Your task to perform on an android device: toggle priority inbox in the gmail app Image 0: 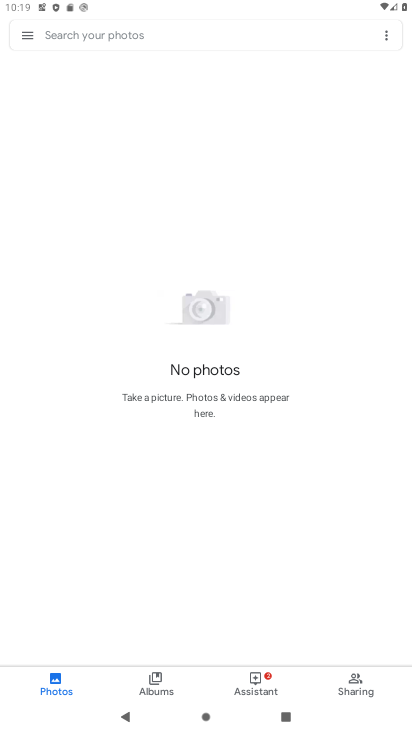
Step 0: press home button
Your task to perform on an android device: toggle priority inbox in the gmail app Image 1: 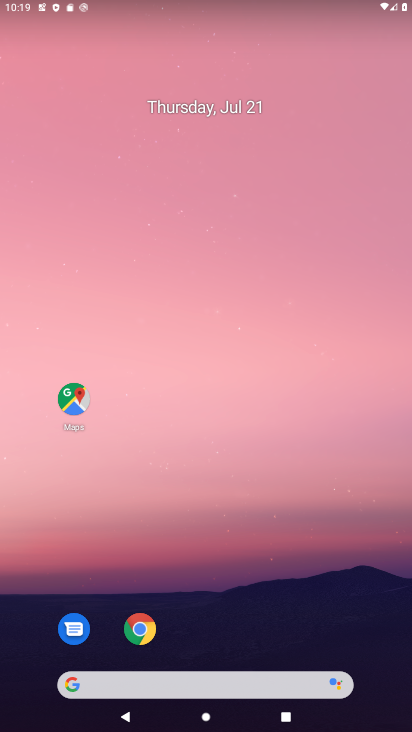
Step 1: drag from (242, 632) to (211, 226)
Your task to perform on an android device: toggle priority inbox in the gmail app Image 2: 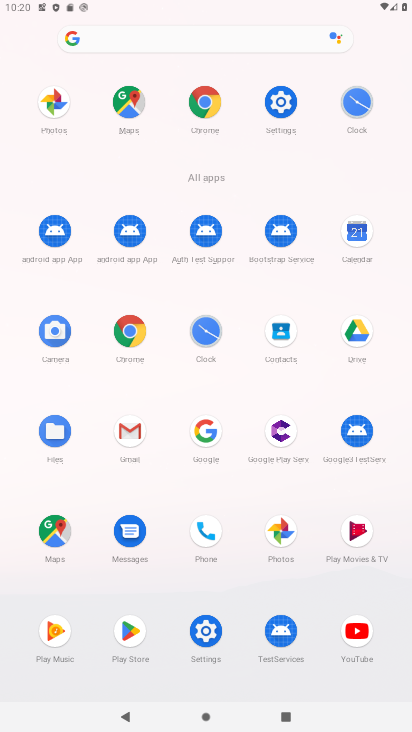
Step 2: click (124, 420)
Your task to perform on an android device: toggle priority inbox in the gmail app Image 3: 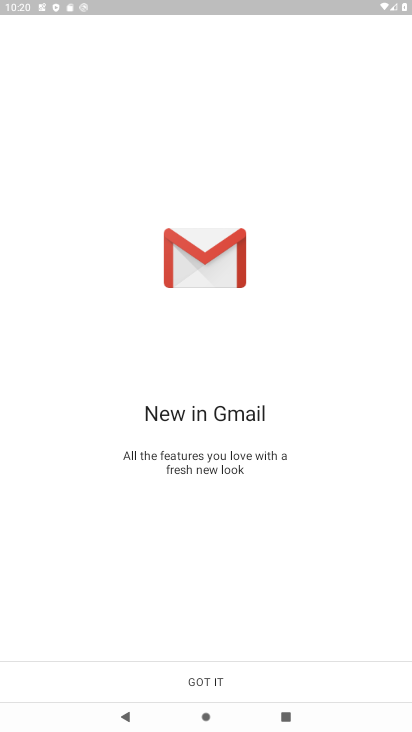
Step 3: click (127, 673)
Your task to perform on an android device: toggle priority inbox in the gmail app Image 4: 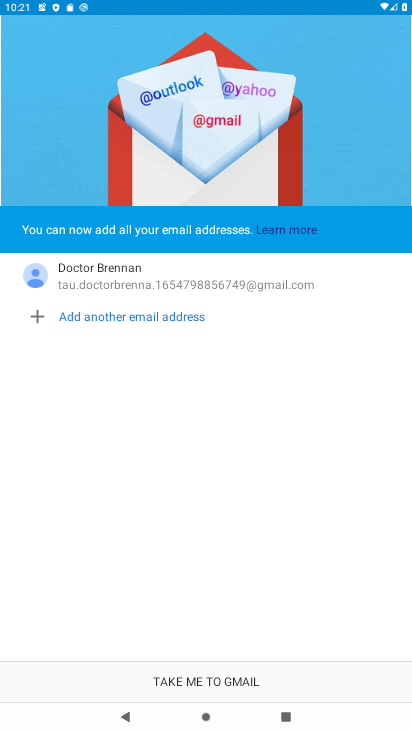
Step 4: click (160, 673)
Your task to perform on an android device: toggle priority inbox in the gmail app Image 5: 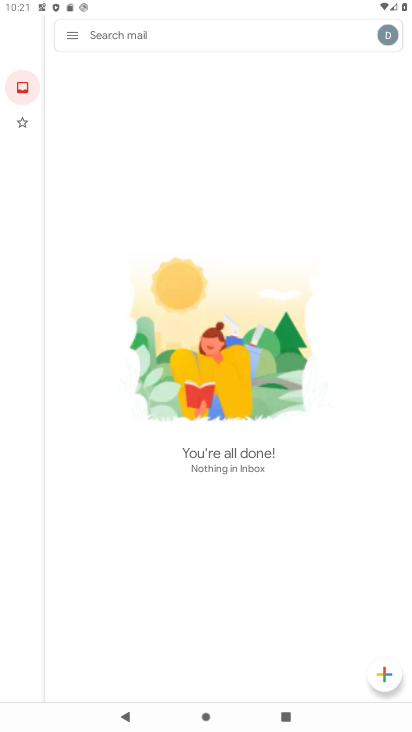
Step 5: click (72, 35)
Your task to perform on an android device: toggle priority inbox in the gmail app Image 6: 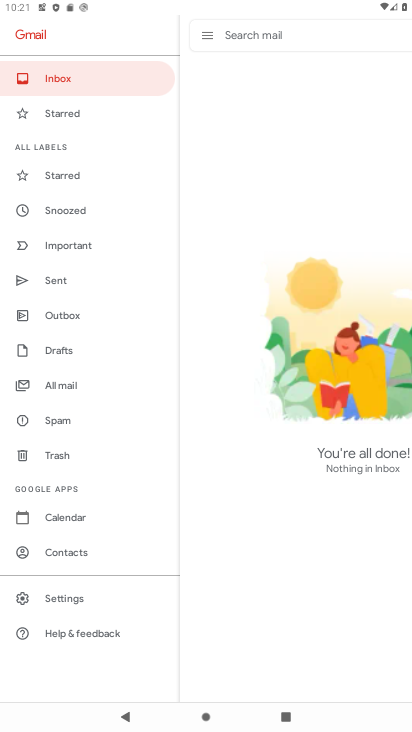
Step 6: click (72, 35)
Your task to perform on an android device: toggle priority inbox in the gmail app Image 7: 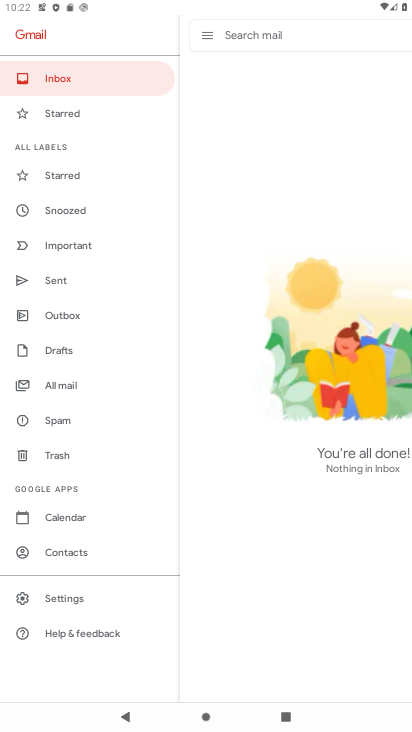
Step 7: click (52, 601)
Your task to perform on an android device: toggle priority inbox in the gmail app Image 8: 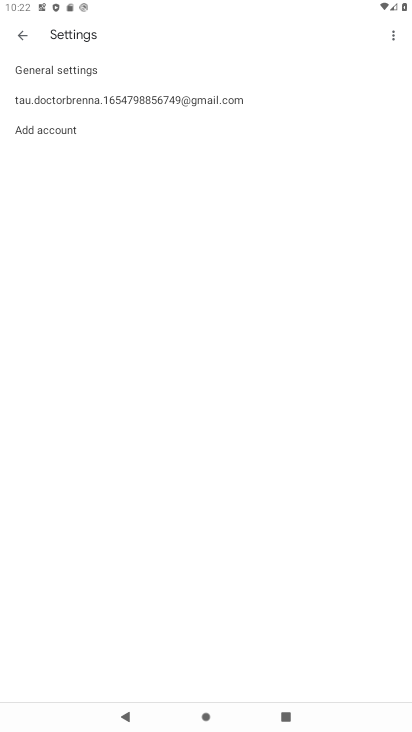
Step 8: click (177, 93)
Your task to perform on an android device: toggle priority inbox in the gmail app Image 9: 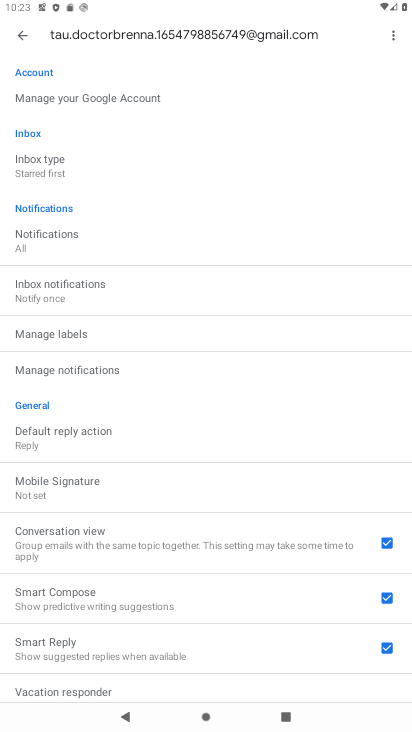
Step 9: click (88, 459)
Your task to perform on an android device: toggle priority inbox in the gmail app Image 10: 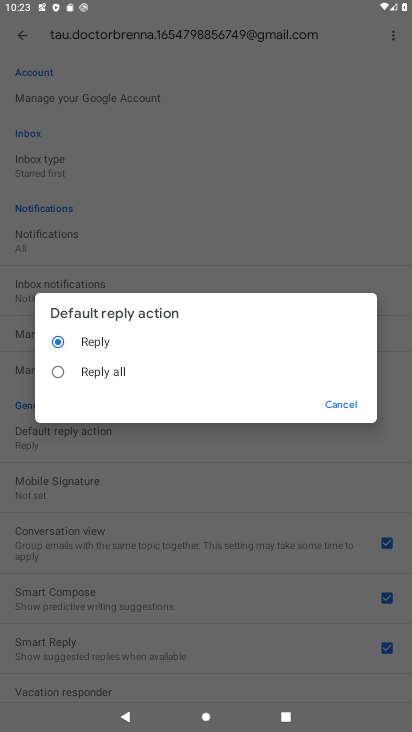
Step 10: click (133, 419)
Your task to perform on an android device: toggle priority inbox in the gmail app Image 11: 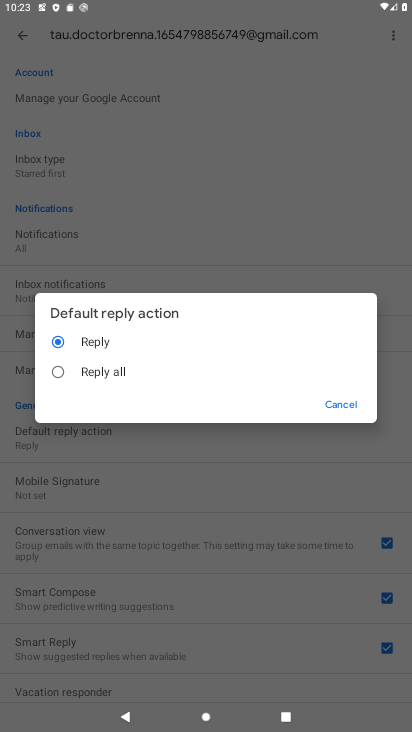
Step 11: click (329, 404)
Your task to perform on an android device: toggle priority inbox in the gmail app Image 12: 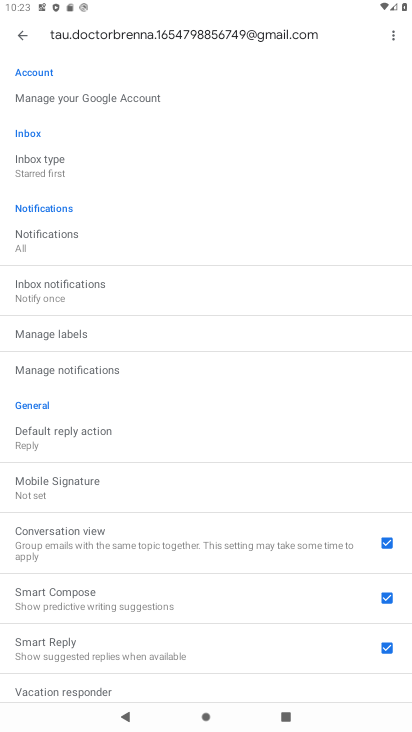
Step 12: click (50, 153)
Your task to perform on an android device: toggle priority inbox in the gmail app Image 13: 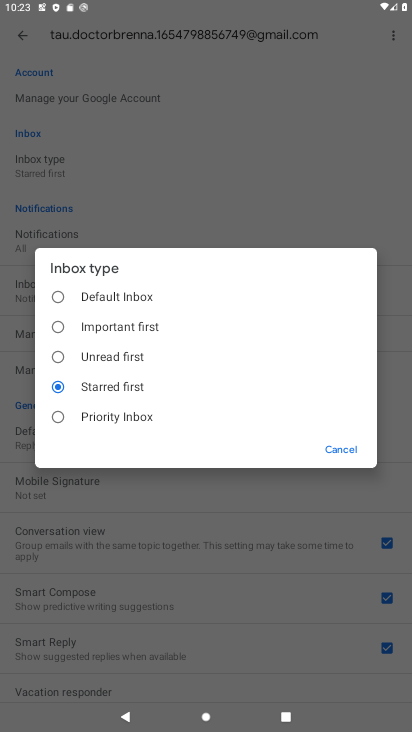
Step 13: click (100, 411)
Your task to perform on an android device: toggle priority inbox in the gmail app Image 14: 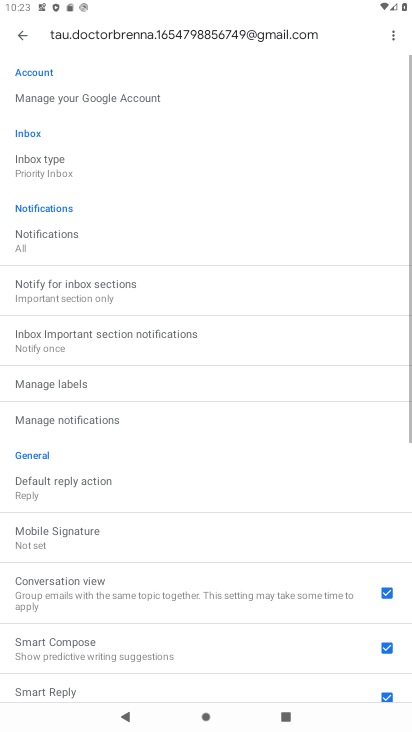
Step 14: task complete